Your task to perform on an android device: toggle notification dots Image 0: 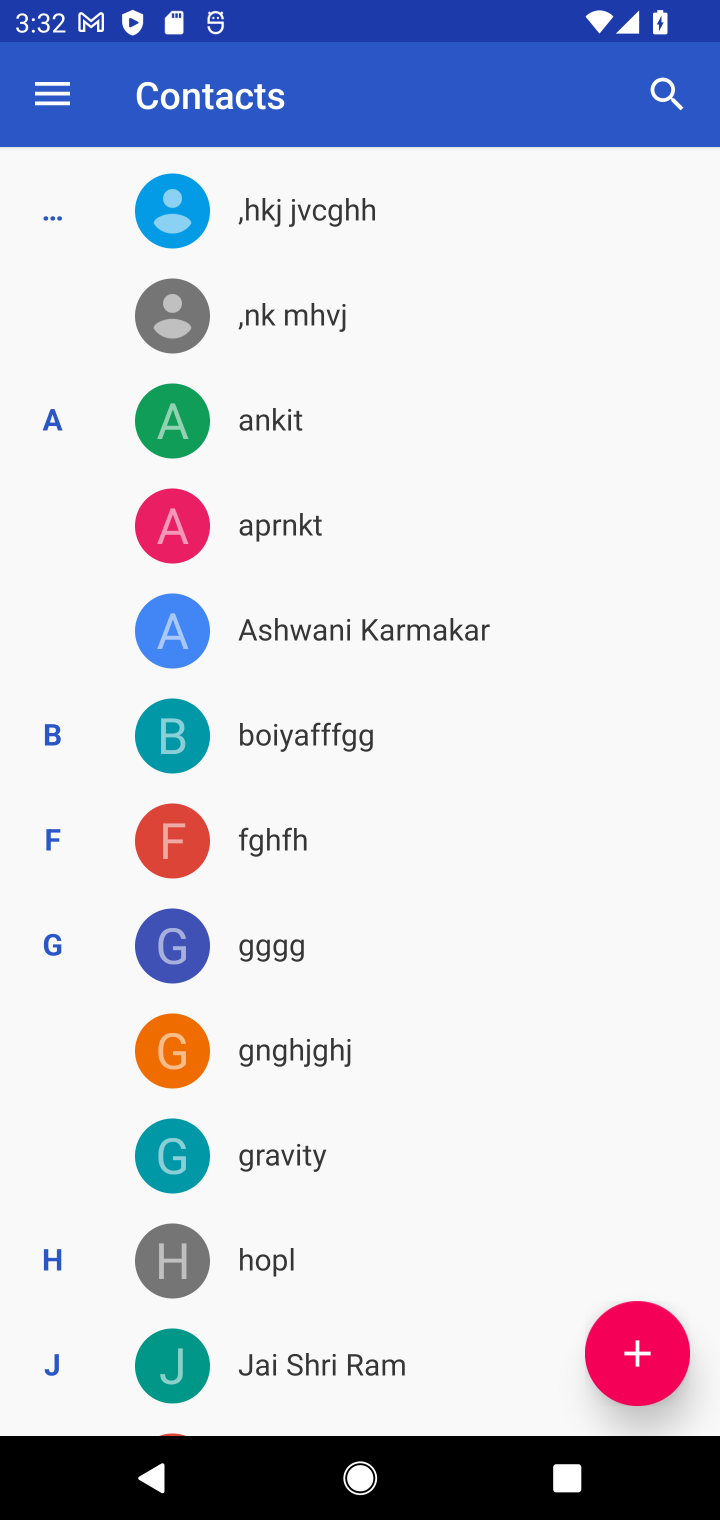
Step 0: press home button
Your task to perform on an android device: toggle notification dots Image 1: 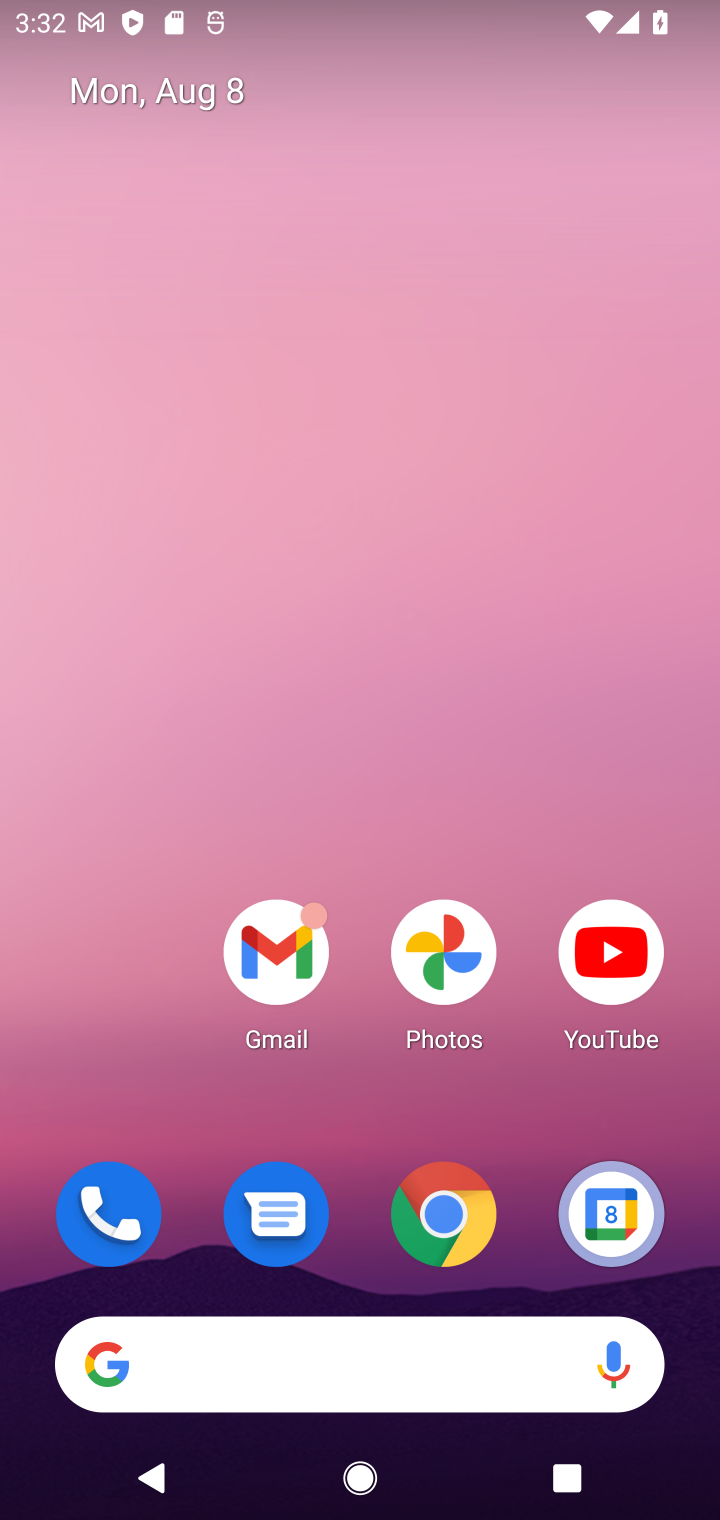
Step 1: drag from (372, 983) to (400, 287)
Your task to perform on an android device: toggle notification dots Image 2: 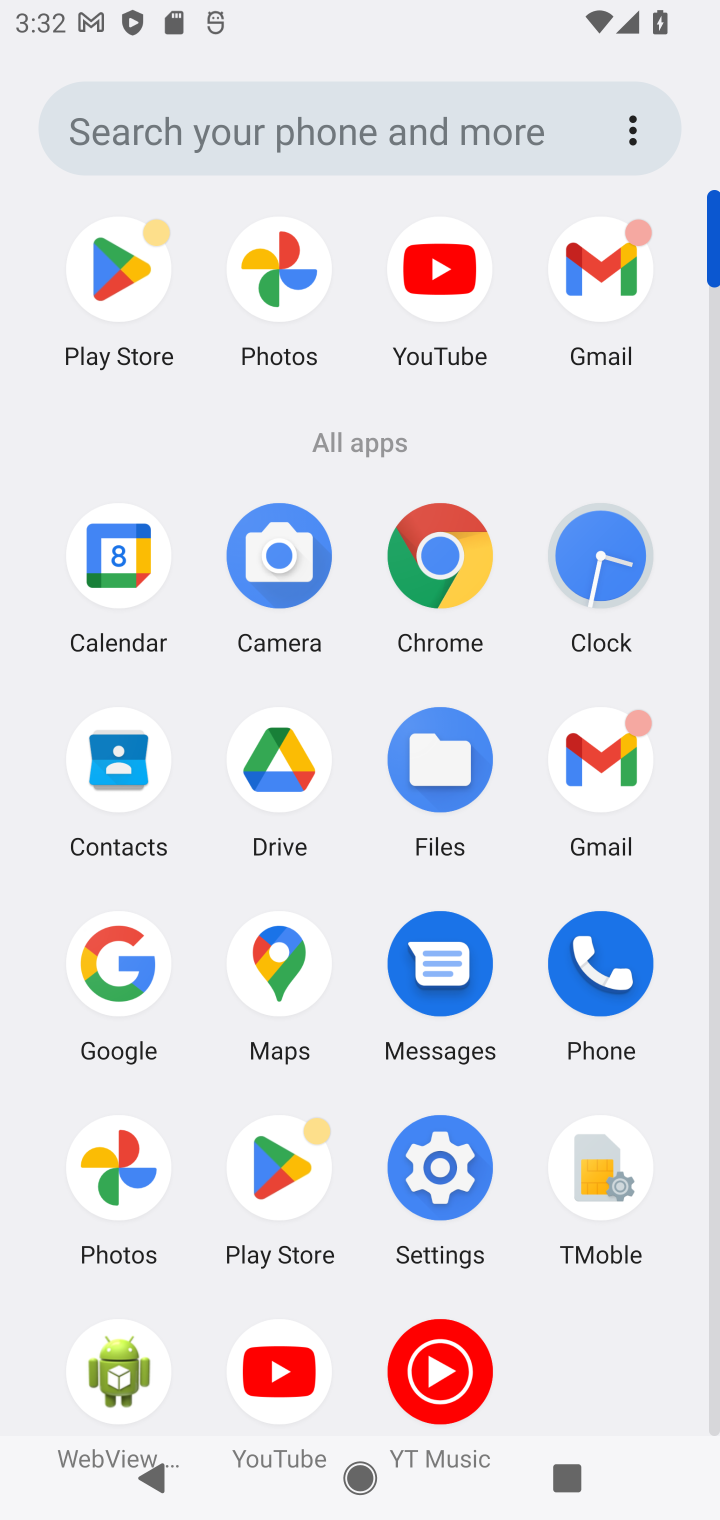
Step 2: click (424, 1153)
Your task to perform on an android device: toggle notification dots Image 3: 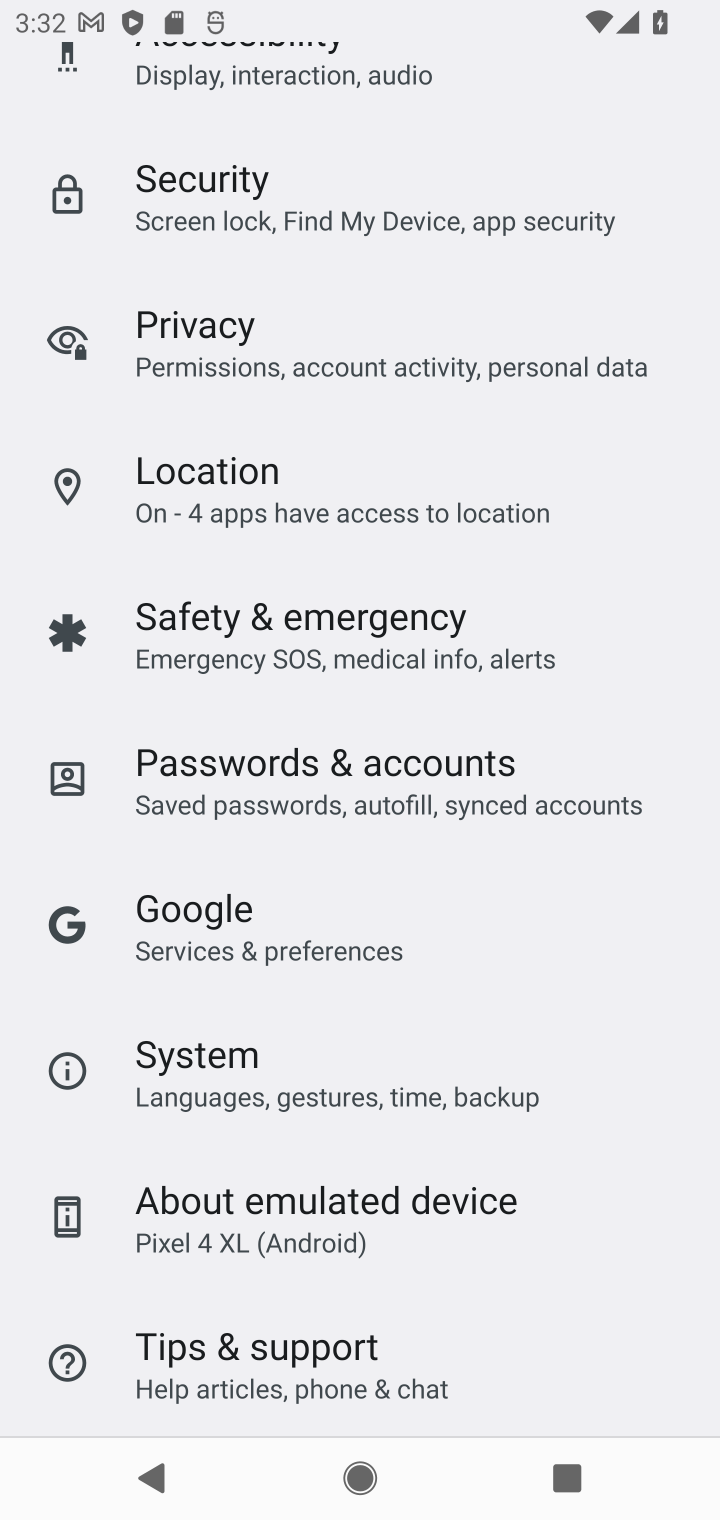
Step 3: drag from (238, 370) to (280, 1150)
Your task to perform on an android device: toggle notification dots Image 4: 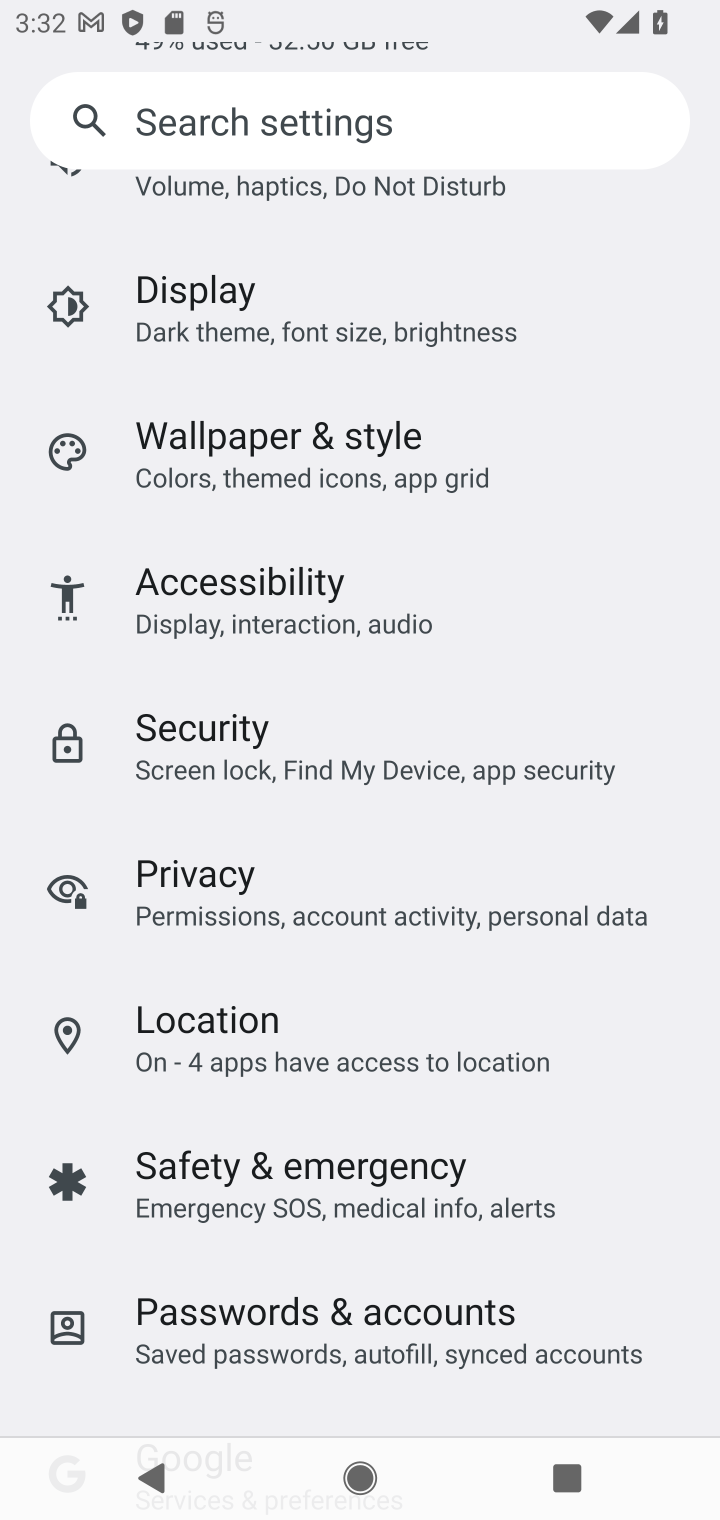
Step 4: drag from (309, 386) to (319, 1086)
Your task to perform on an android device: toggle notification dots Image 5: 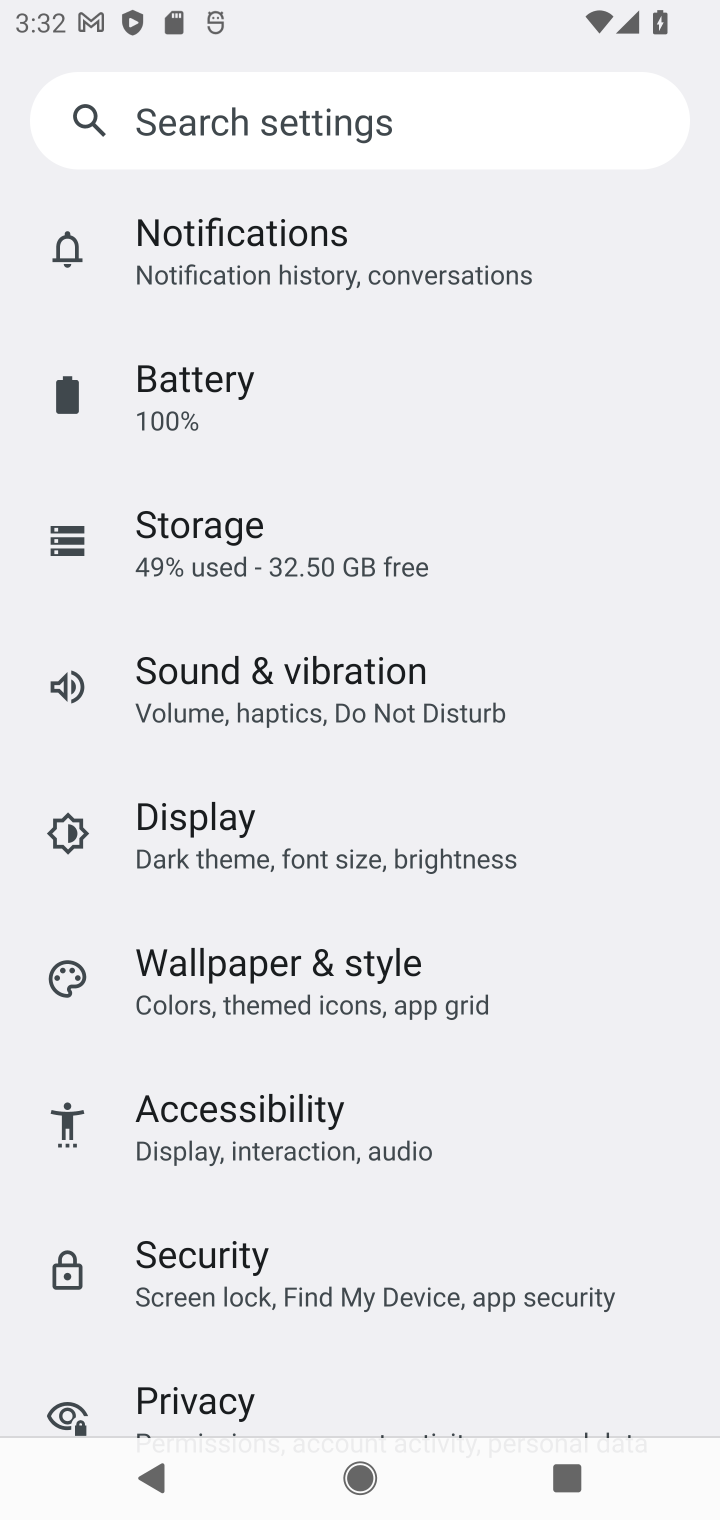
Step 5: click (212, 266)
Your task to perform on an android device: toggle notification dots Image 6: 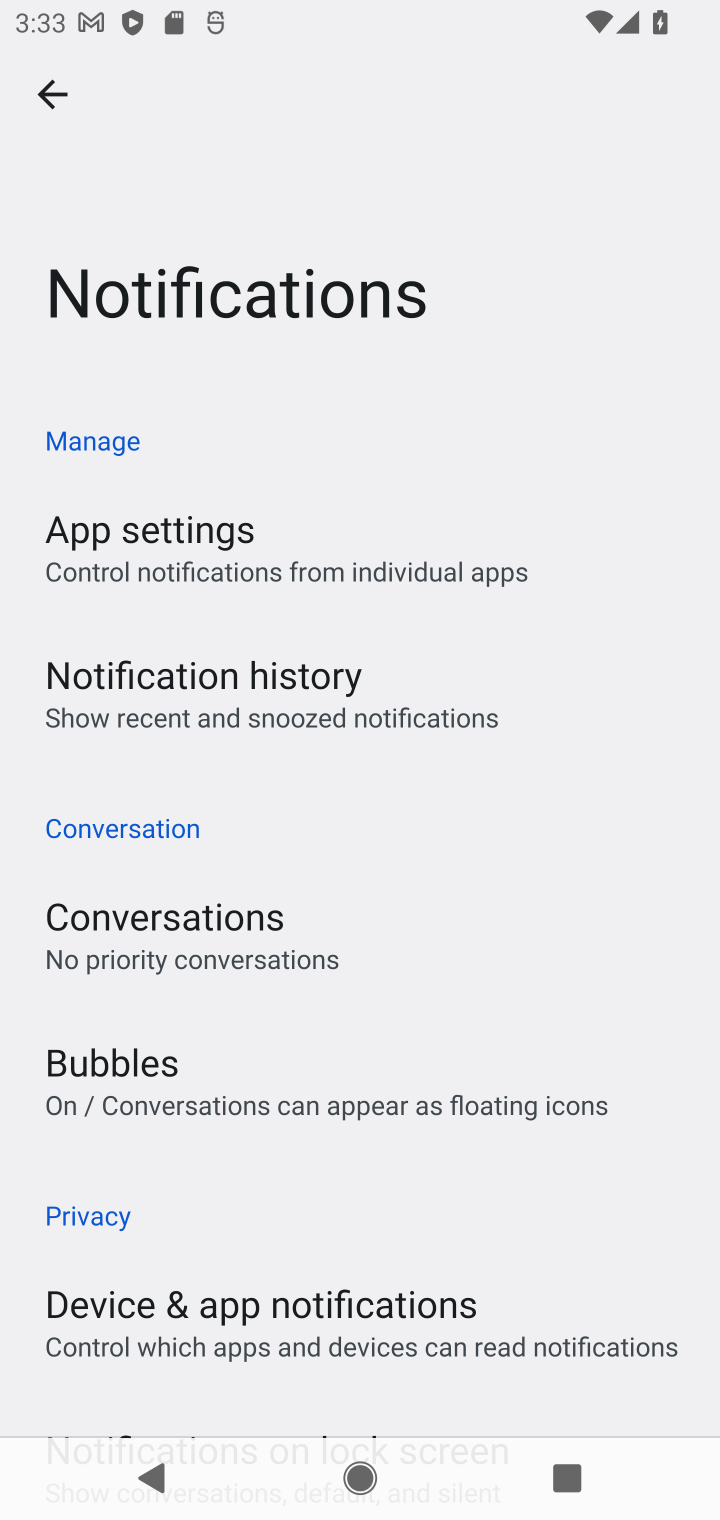
Step 6: drag from (287, 1305) to (294, 683)
Your task to perform on an android device: toggle notification dots Image 7: 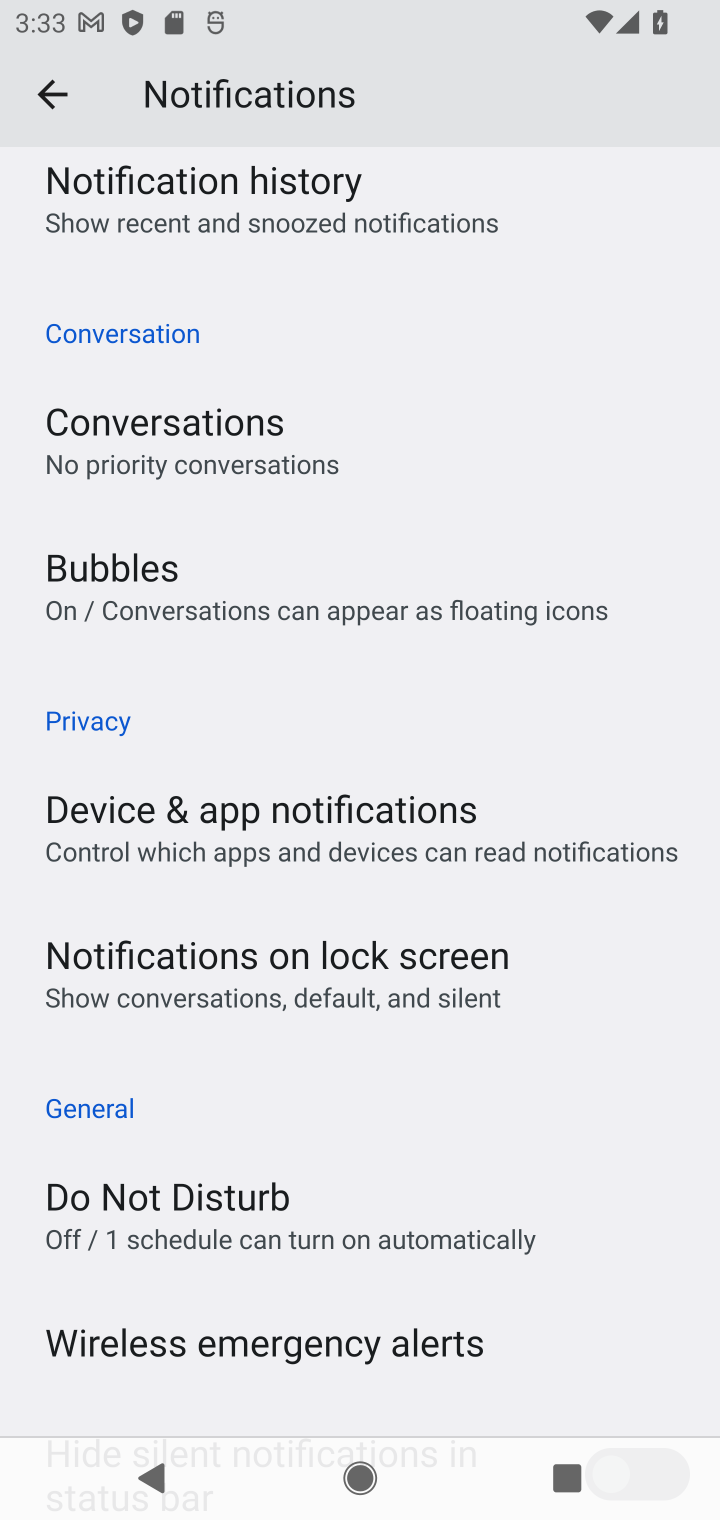
Step 7: drag from (331, 1326) to (297, 505)
Your task to perform on an android device: toggle notification dots Image 8: 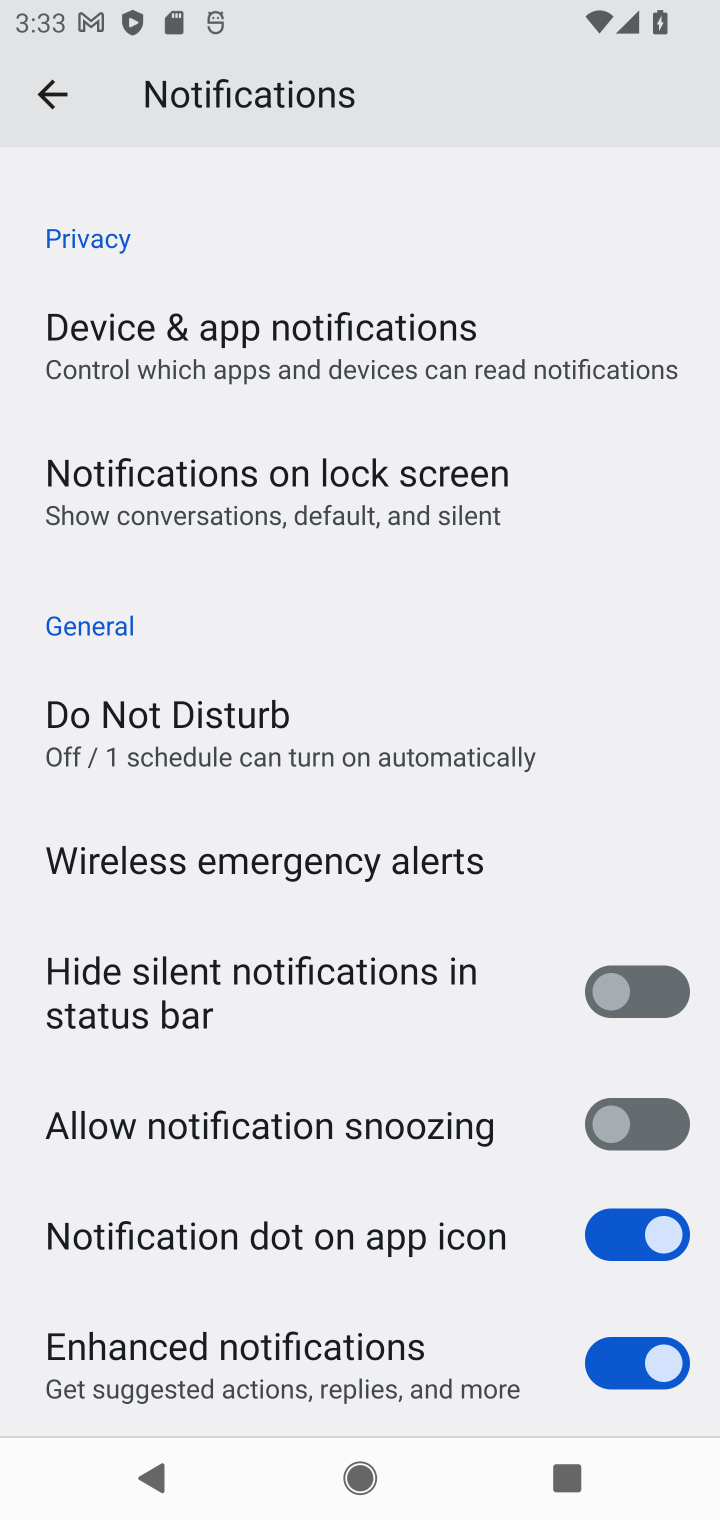
Step 8: click (630, 1236)
Your task to perform on an android device: toggle notification dots Image 9: 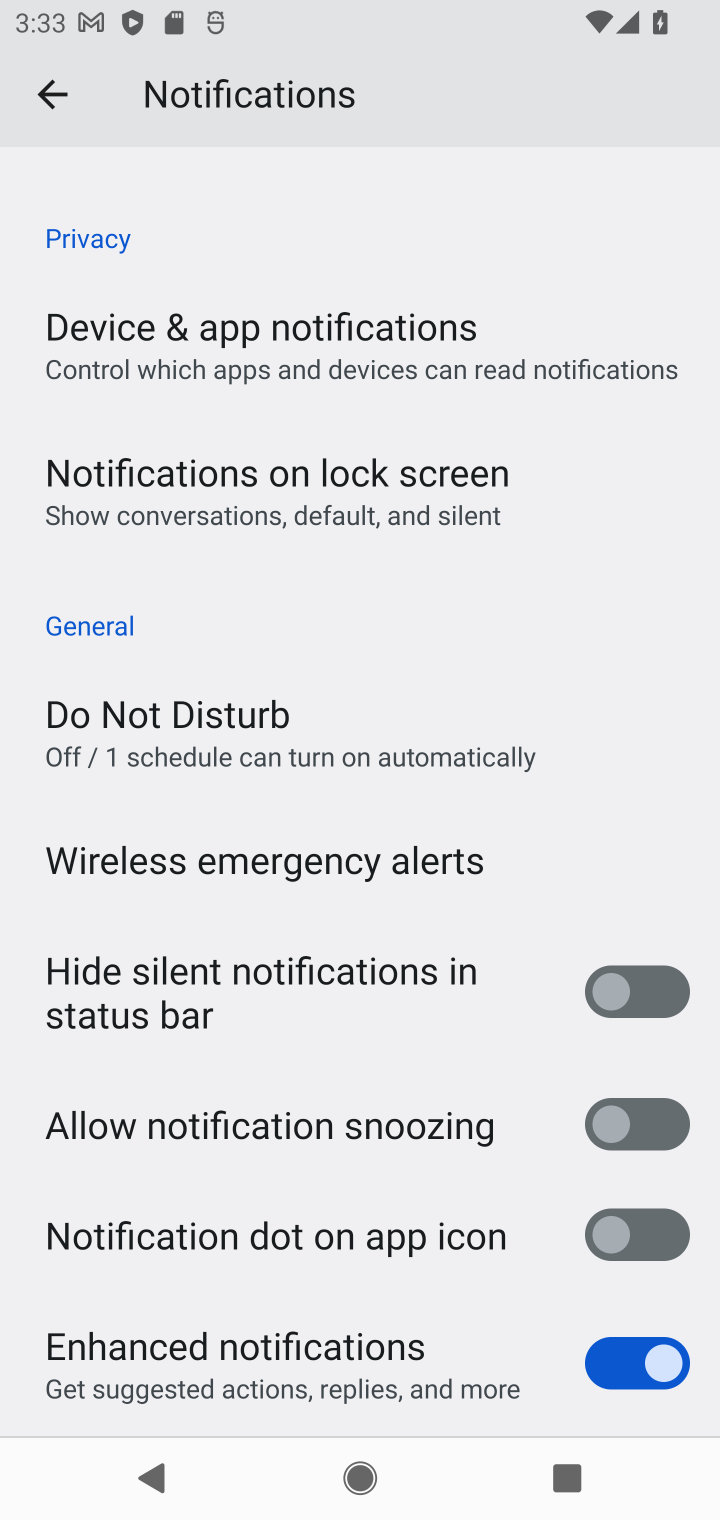
Step 9: task complete